Your task to perform on an android device: Go to Google maps Image 0: 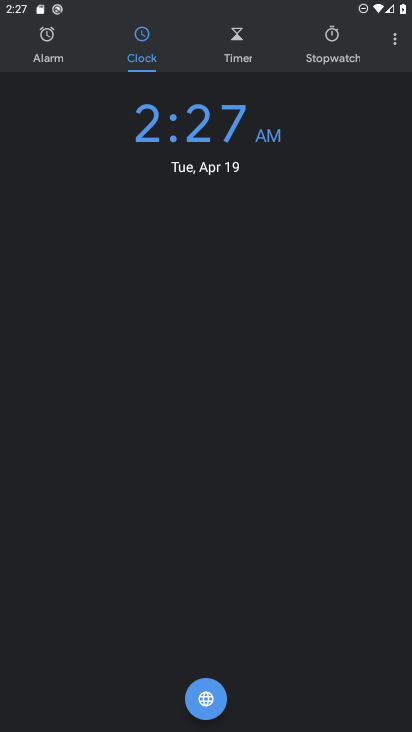
Step 0: press home button
Your task to perform on an android device: Go to Google maps Image 1: 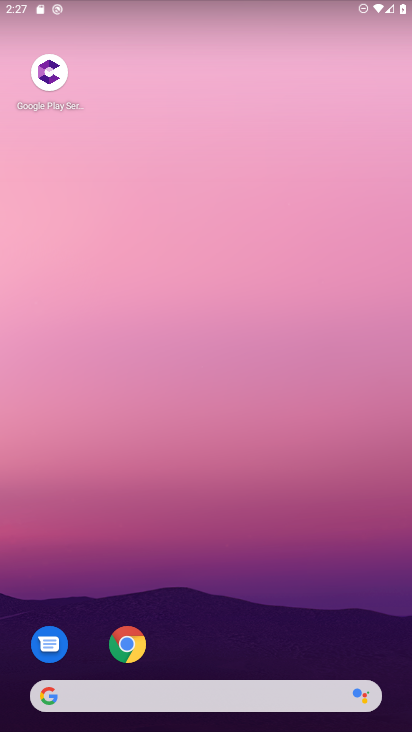
Step 1: drag from (204, 638) to (124, 66)
Your task to perform on an android device: Go to Google maps Image 2: 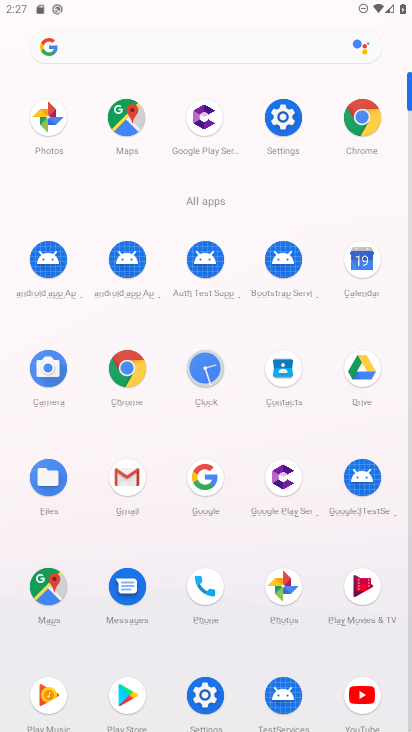
Step 2: click (125, 122)
Your task to perform on an android device: Go to Google maps Image 3: 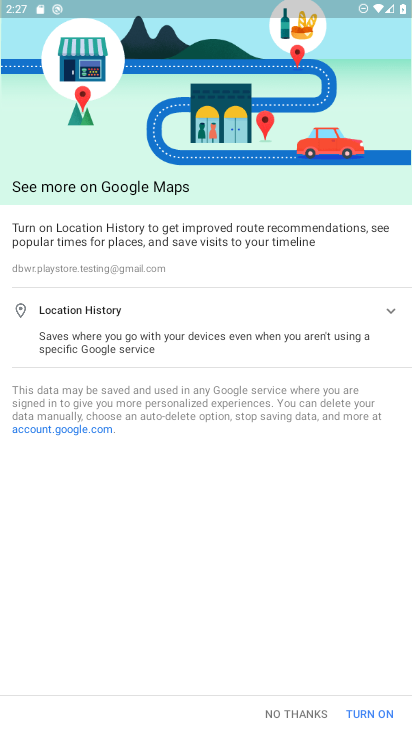
Step 3: click (286, 709)
Your task to perform on an android device: Go to Google maps Image 4: 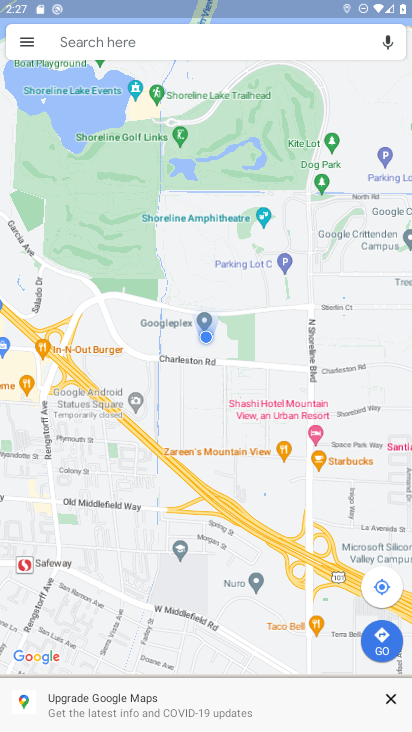
Step 4: task complete